Your task to perform on an android device: toggle pop-ups in chrome Image 0: 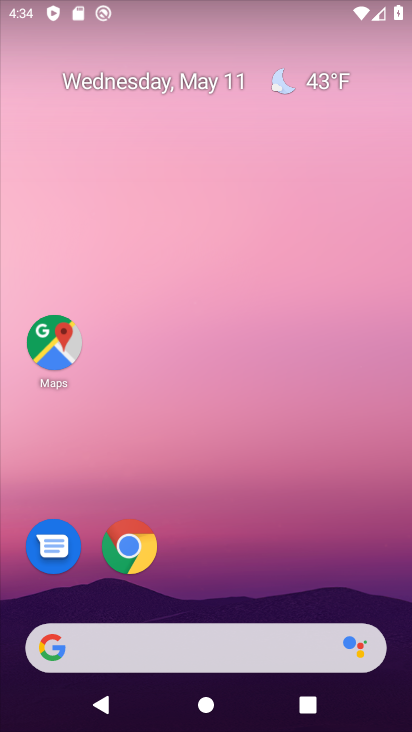
Step 0: press home button
Your task to perform on an android device: toggle pop-ups in chrome Image 1: 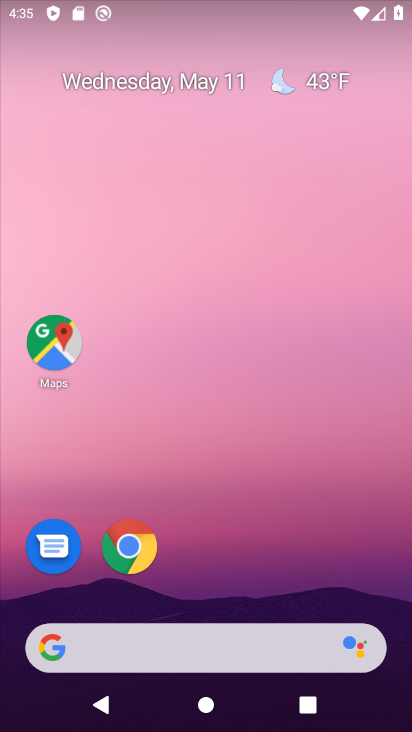
Step 1: click (142, 553)
Your task to perform on an android device: toggle pop-ups in chrome Image 2: 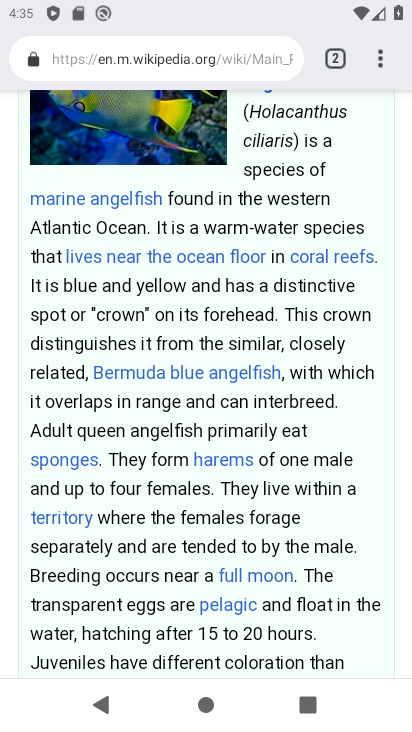
Step 2: click (382, 61)
Your task to perform on an android device: toggle pop-ups in chrome Image 3: 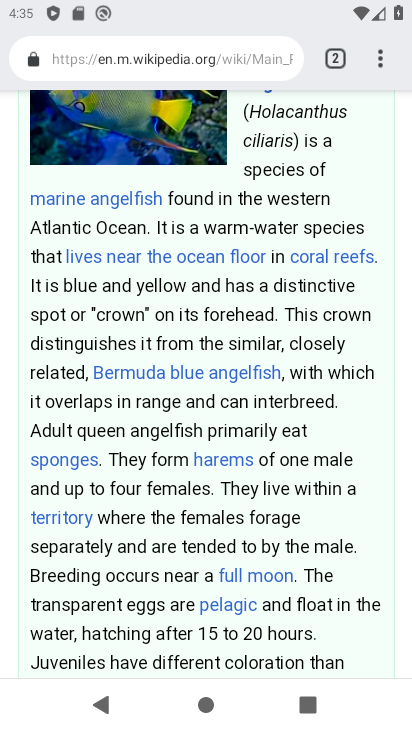
Step 3: click (371, 56)
Your task to perform on an android device: toggle pop-ups in chrome Image 4: 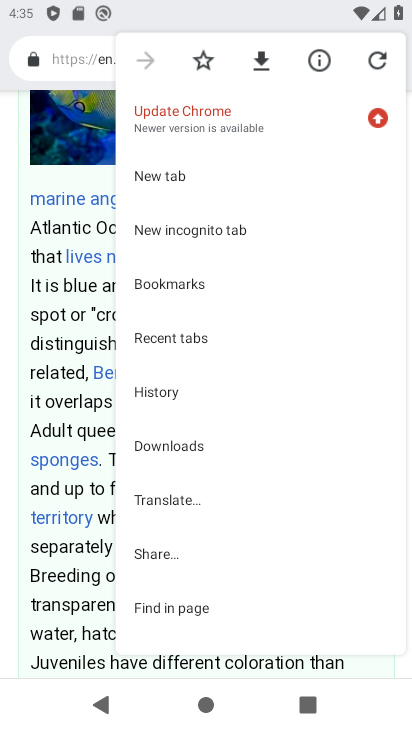
Step 4: drag from (192, 619) to (192, 300)
Your task to perform on an android device: toggle pop-ups in chrome Image 5: 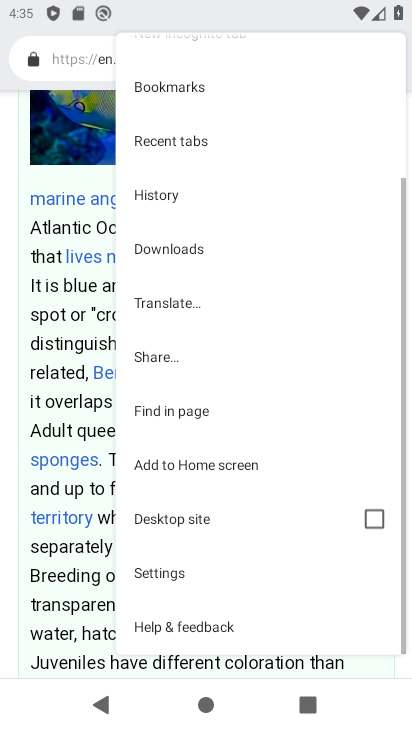
Step 5: click (158, 576)
Your task to perform on an android device: toggle pop-ups in chrome Image 6: 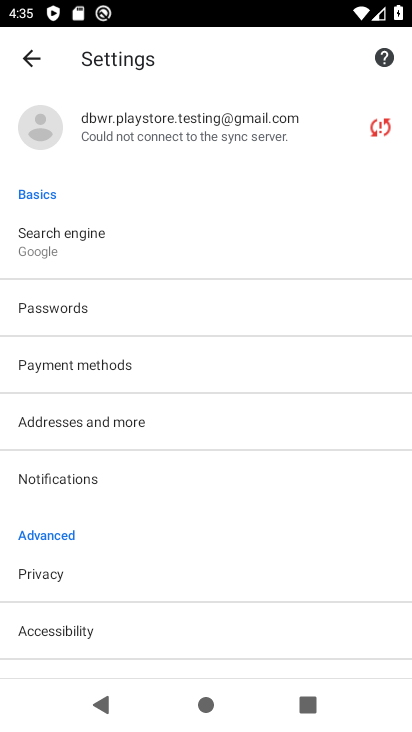
Step 6: drag from (176, 635) to (203, 224)
Your task to perform on an android device: toggle pop-ups in chrome Image 7: 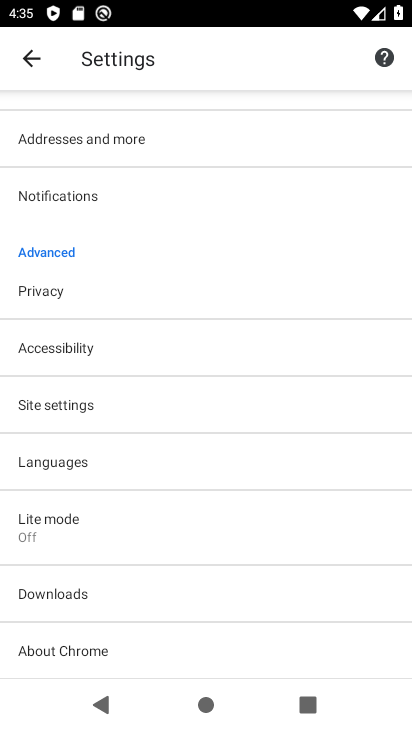
Step 7: drag from (61, 661) to (71, 326)
Your task to perform on an android device: toggle pop-ups in chrome Image 8: 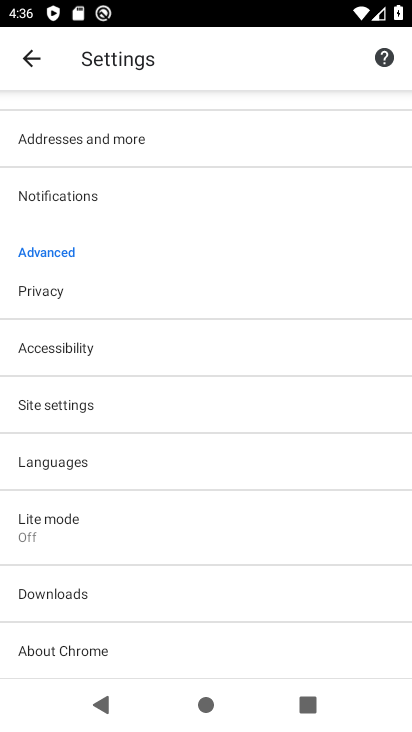
Step 8: click (74, 403)
Your task to perform on an android device: toggle pop-ups in chrome Image 9: 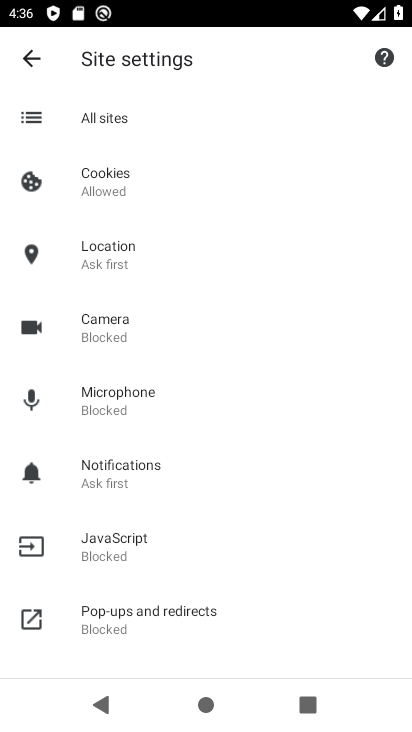
Step 9: click (145, 620)
Your task to perform on an android device: toggle pop-ups in chrome Image 10: 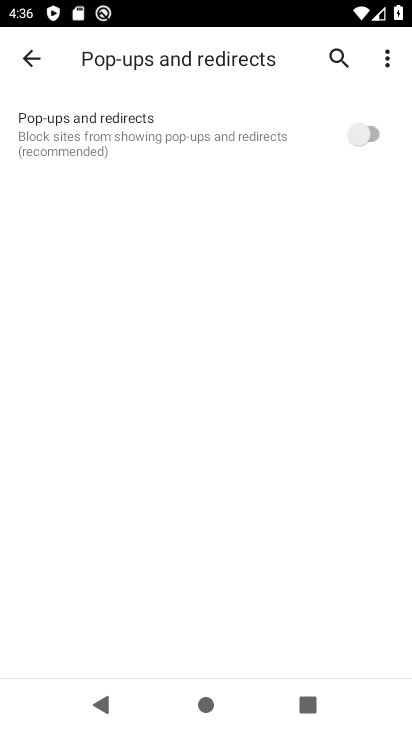
Step 10: click (367, 125)
Your task to perform on an android device: toggle pop-ups in chrome Image 11: 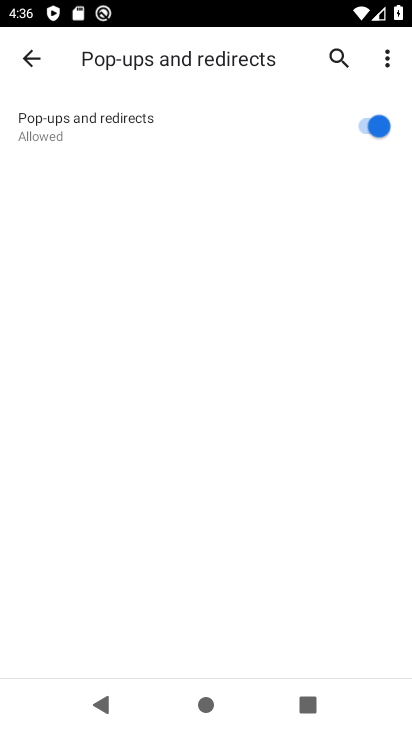
Step 11: task complete